Your task to perform on an android device: delete location history Image 0: 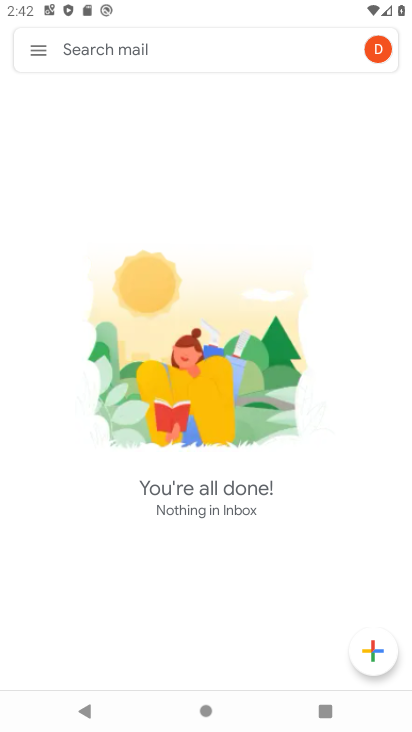
Step 0: press home button
Your task to perform on an android device: delete location history Image 1: 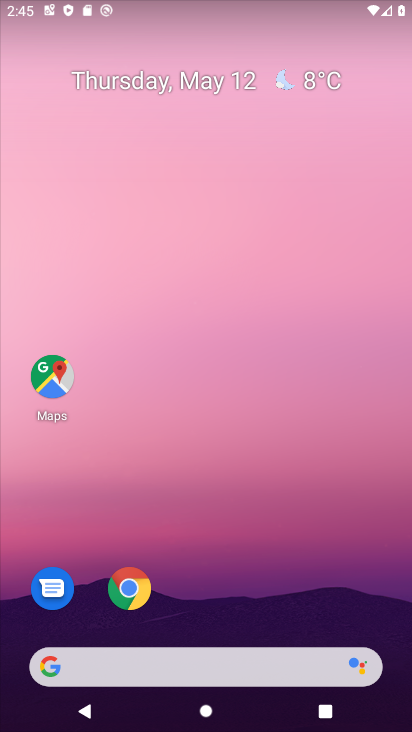
Step 1: drag from (207, 627) to (180, 179)
Your task to perform on an android device: delete location history Image 2: 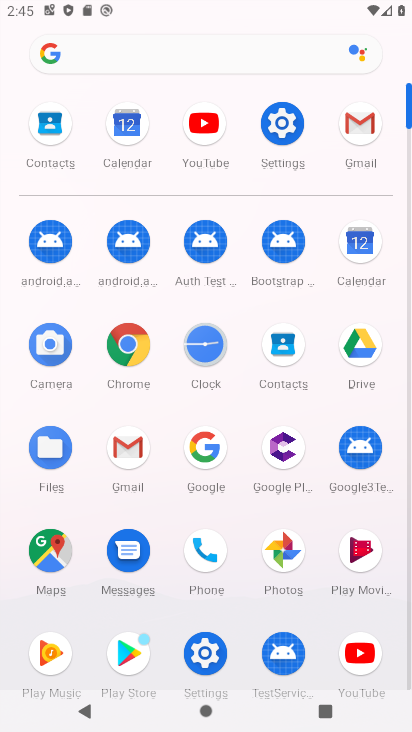
Step 2: click (270, 127)
Your task to perform on an android device: delete location history Image 3: 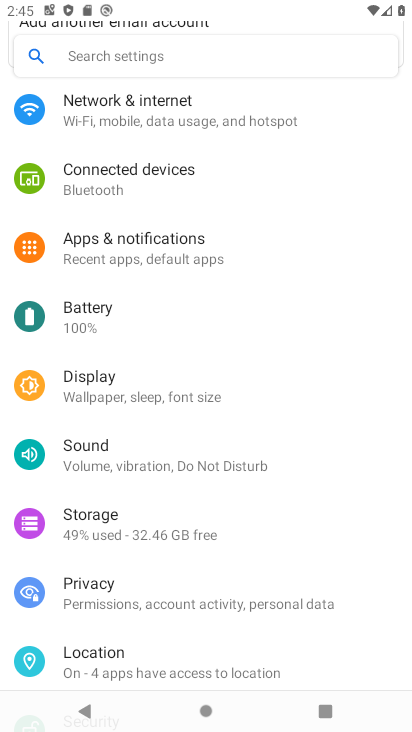
Step 3: click (241, 647)
Your task to perform on an android device: delete location history Image 4: 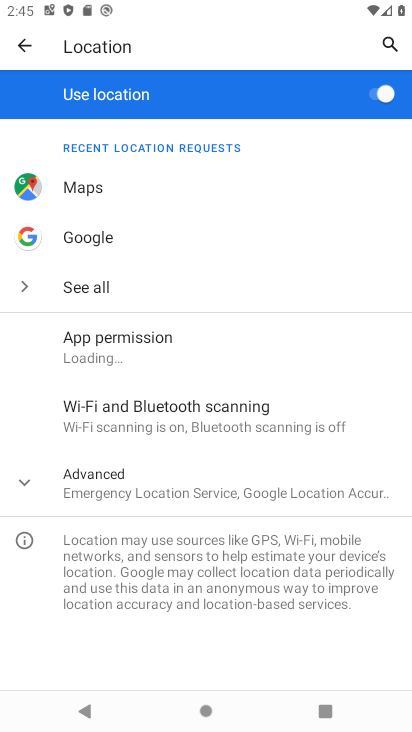
Step 4: click (217, 506)
Your task to perform on an android device: delete location history Image 5: 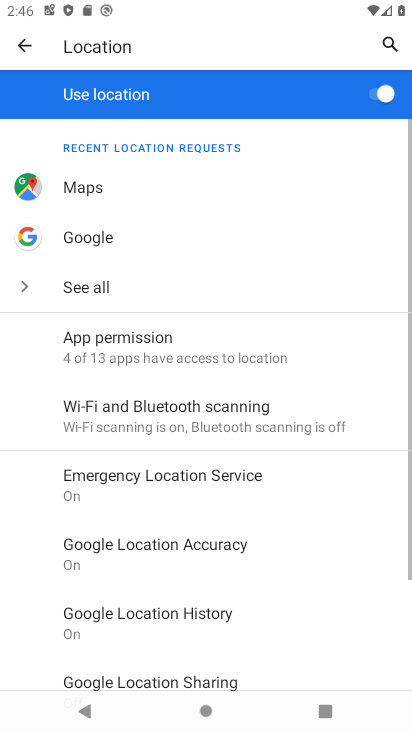
Step 5: click (229, 619)
Your task to perform on an android device: delete location history Image 6: 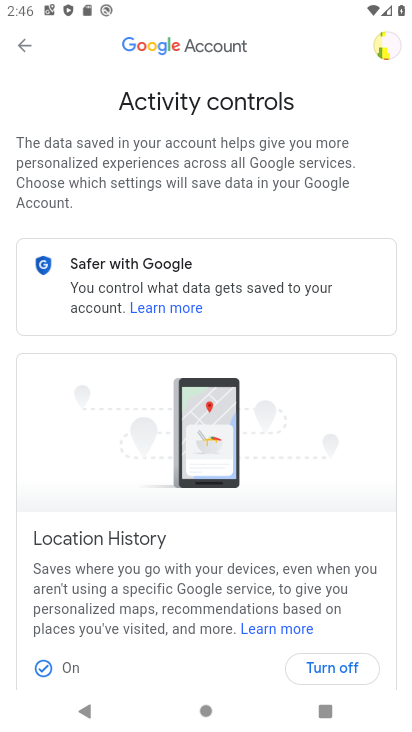
Step 6: drag from (279, 608) to (260, 369)
Your task to perform on an android device: delete location history Image 7: 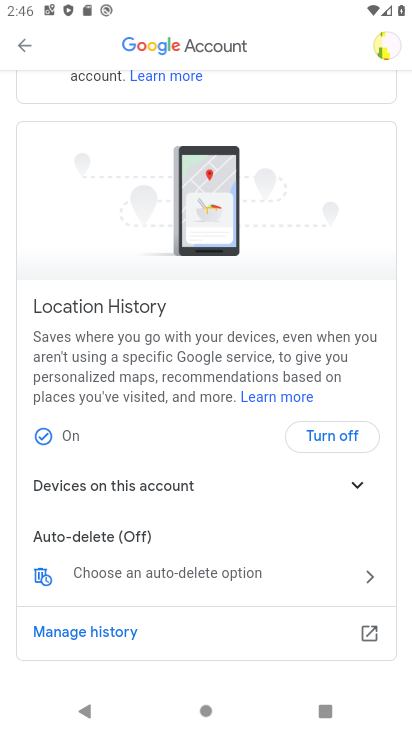
Step 7: click (236, 580)
Your task to perform on an android device: delete location history Image 8: 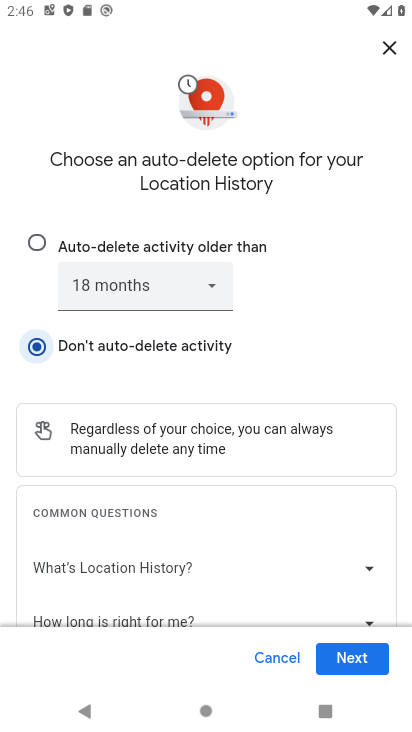
Step 8: click (381, 658)
Your task to perform on an android device: delete location history Image 9: 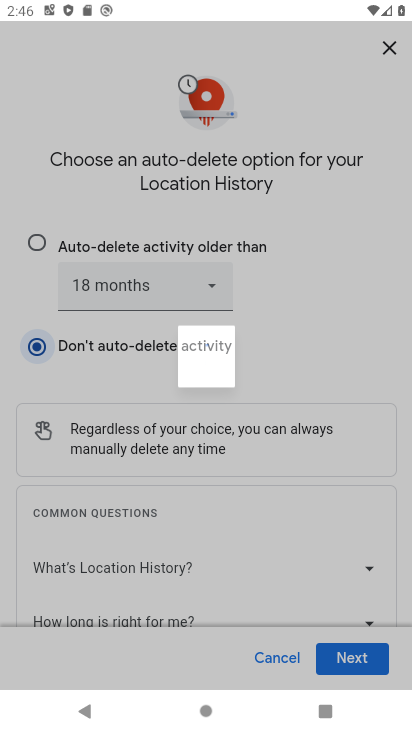
Step 9: click (348, 659)
Your task to perform on an android device: delete location history Image 10: 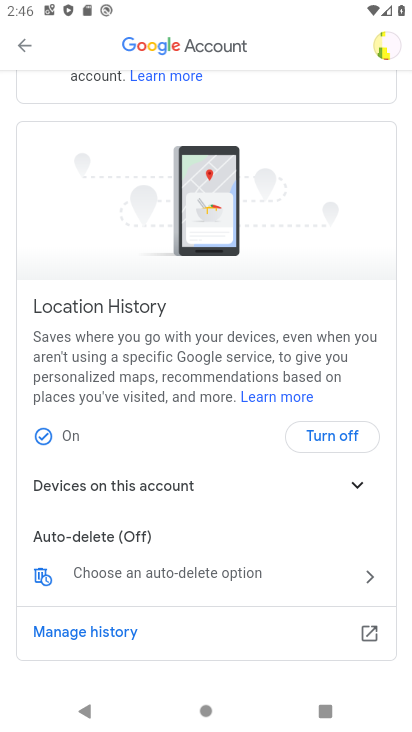
Step 10: drag from (341, 592) to (323, 508)
Your task to perform on an android device: delete location history Image 11: 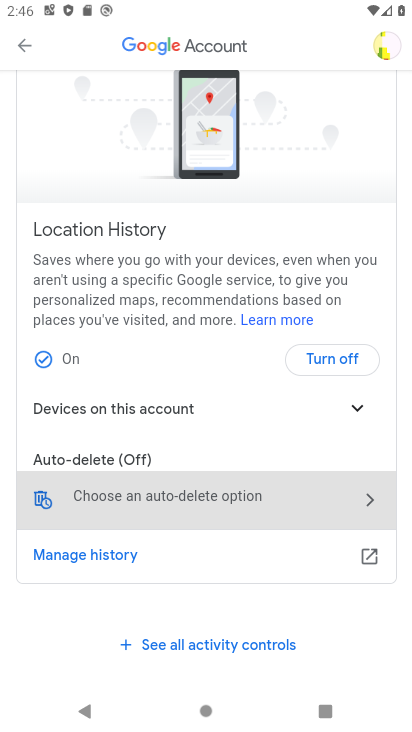
Step 11: click (158, 555)
Your task to perform on an android device: delete location history Image 12: 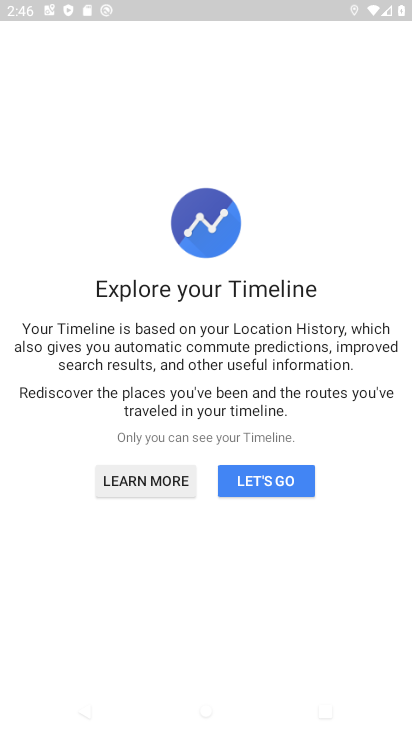
Step 12: task complete